Your task to perform on an android device: check battery use Image 0: 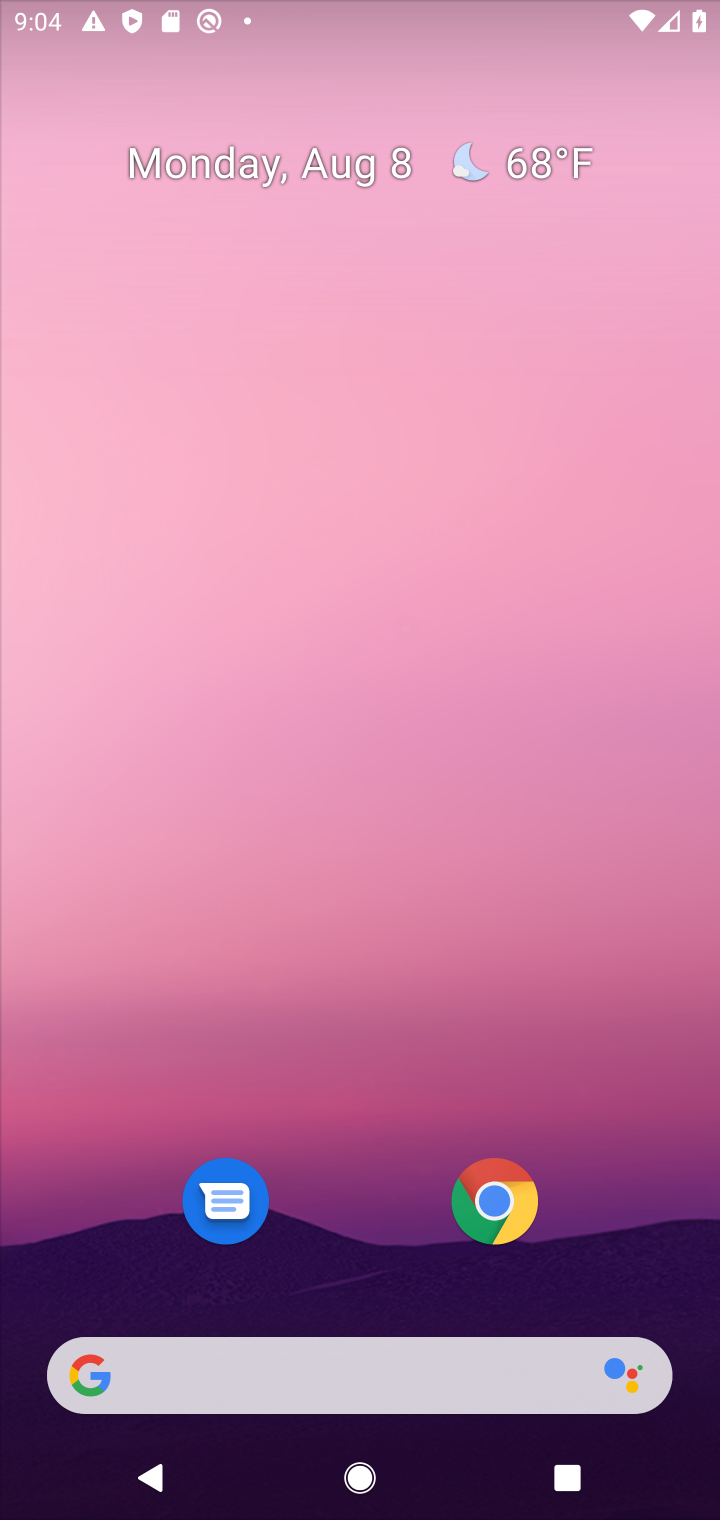
Step 0: press home button
Your task to perform on an android device: check battery use Image 1: 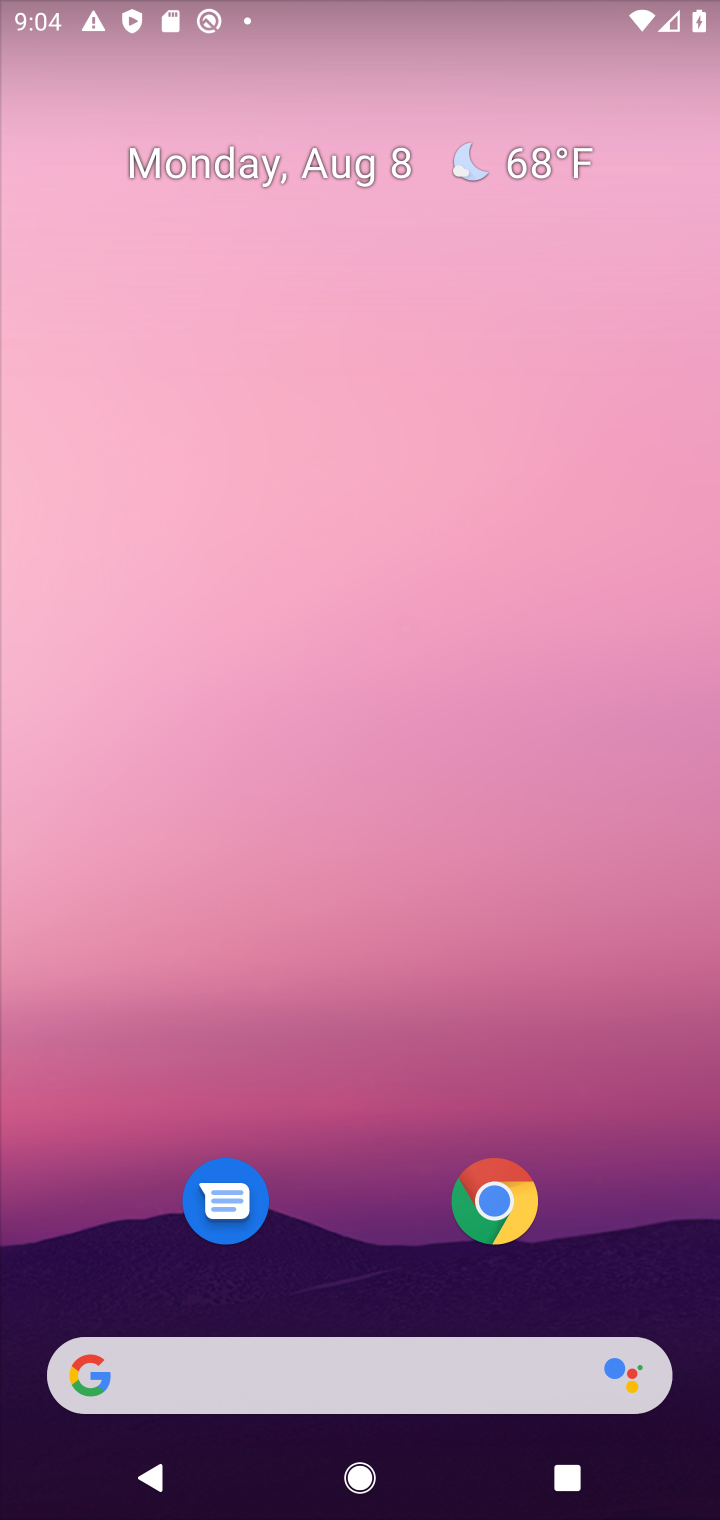
Step 1: drag from (382, 1199) to (466, 194)
Your task to perform on an android device: check battery use Image 2: 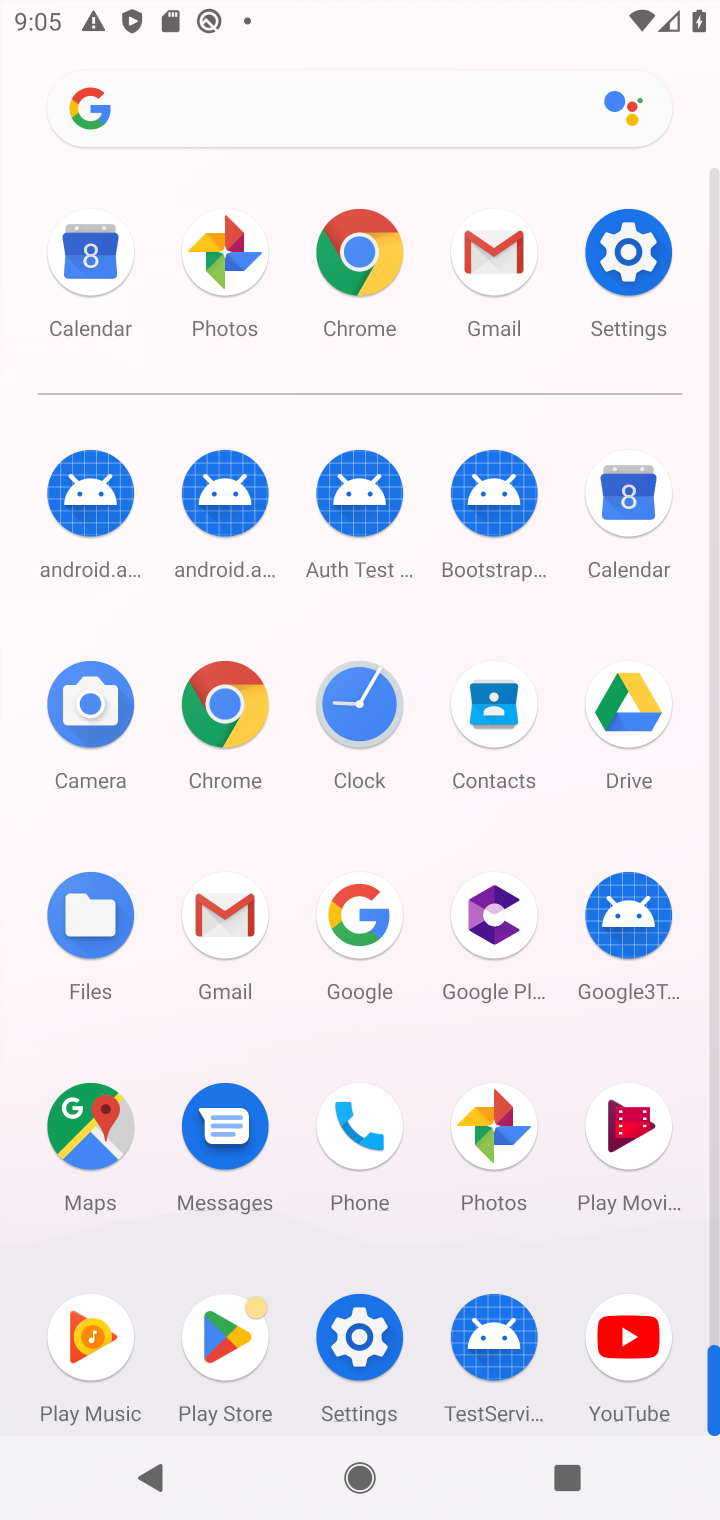
Step 2: click (624, 250)
Your task to perform on an android device: check battery use Image 3: 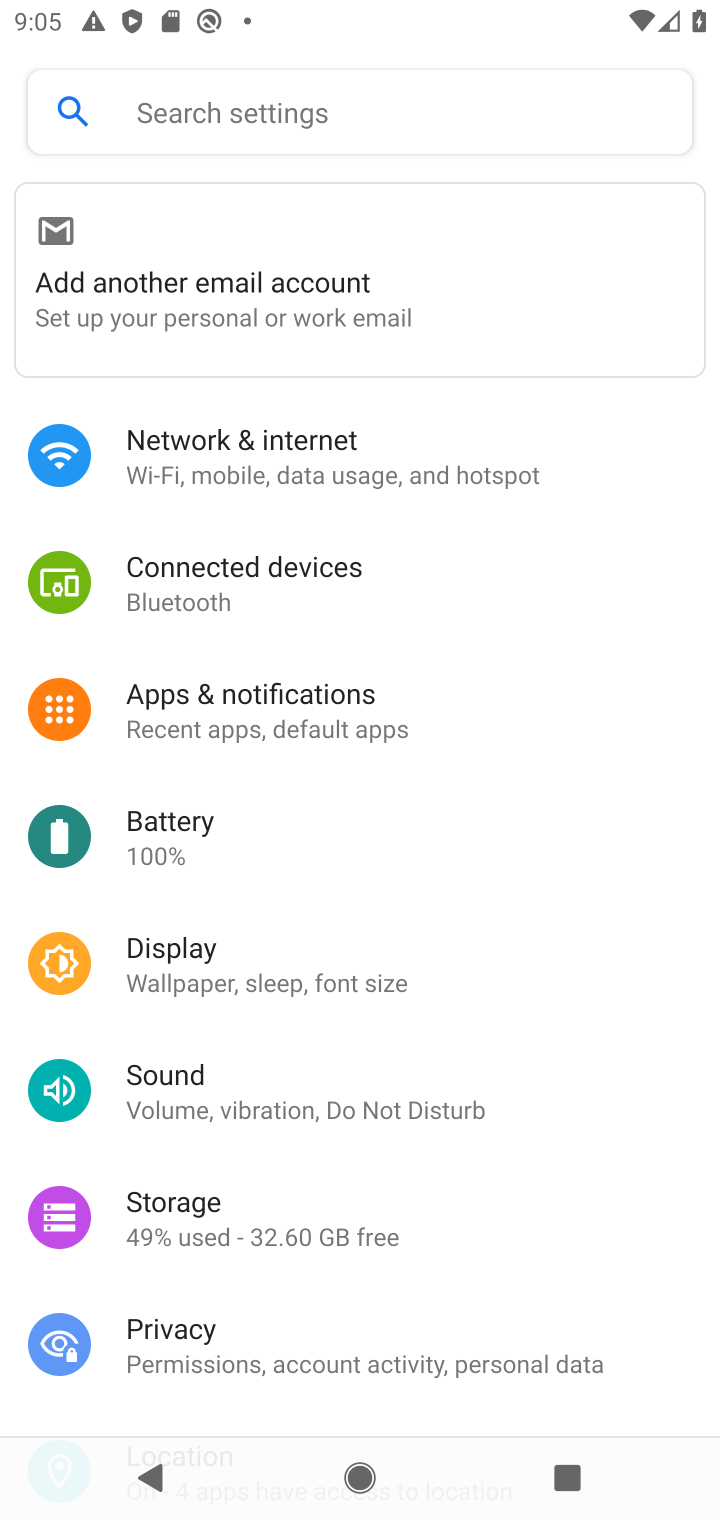
Step 3: drag from (605, 867) to (618, 665)
Your task to perform on an android device: check battery use Image 4: 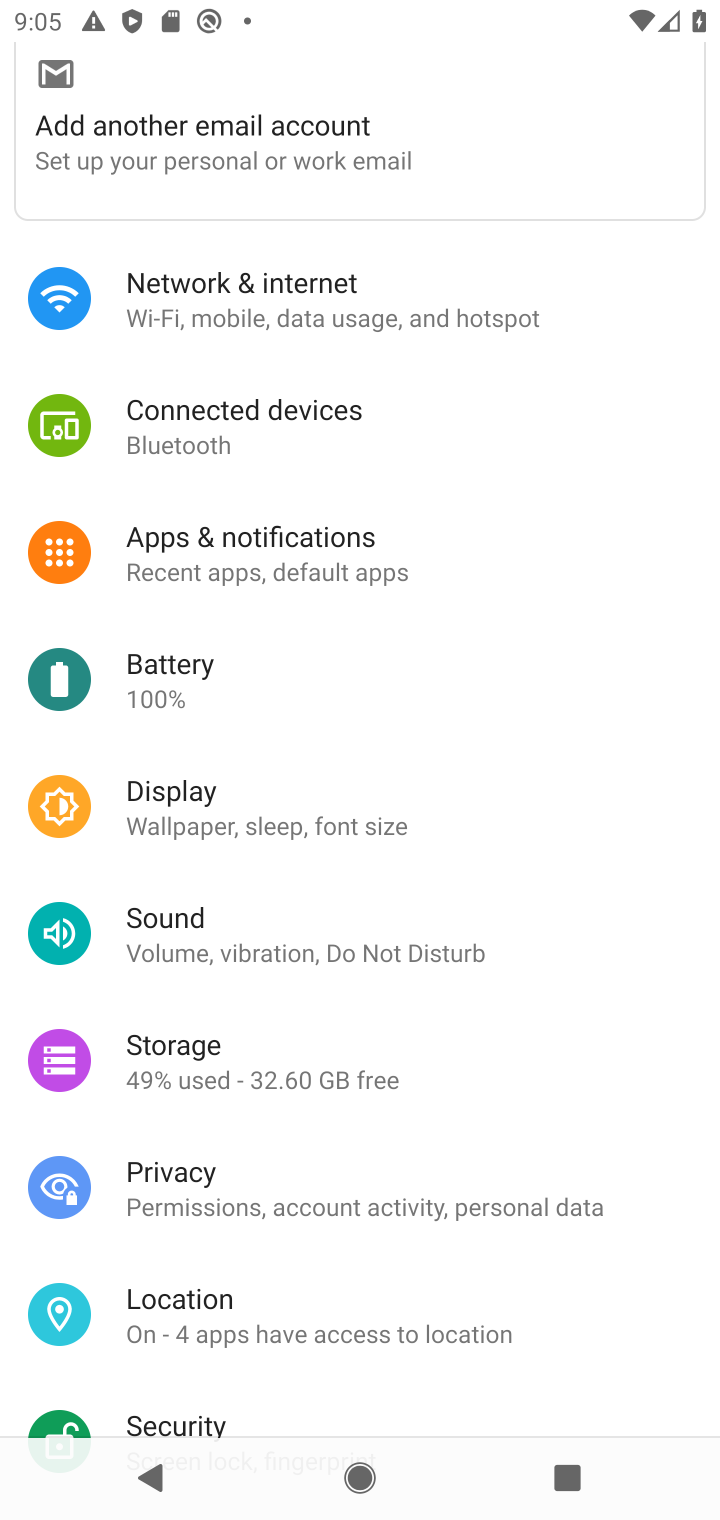
Step 4: drag from (611, 871) to (612, 485)
Your task to perform on an android device: check battery use Image 5: 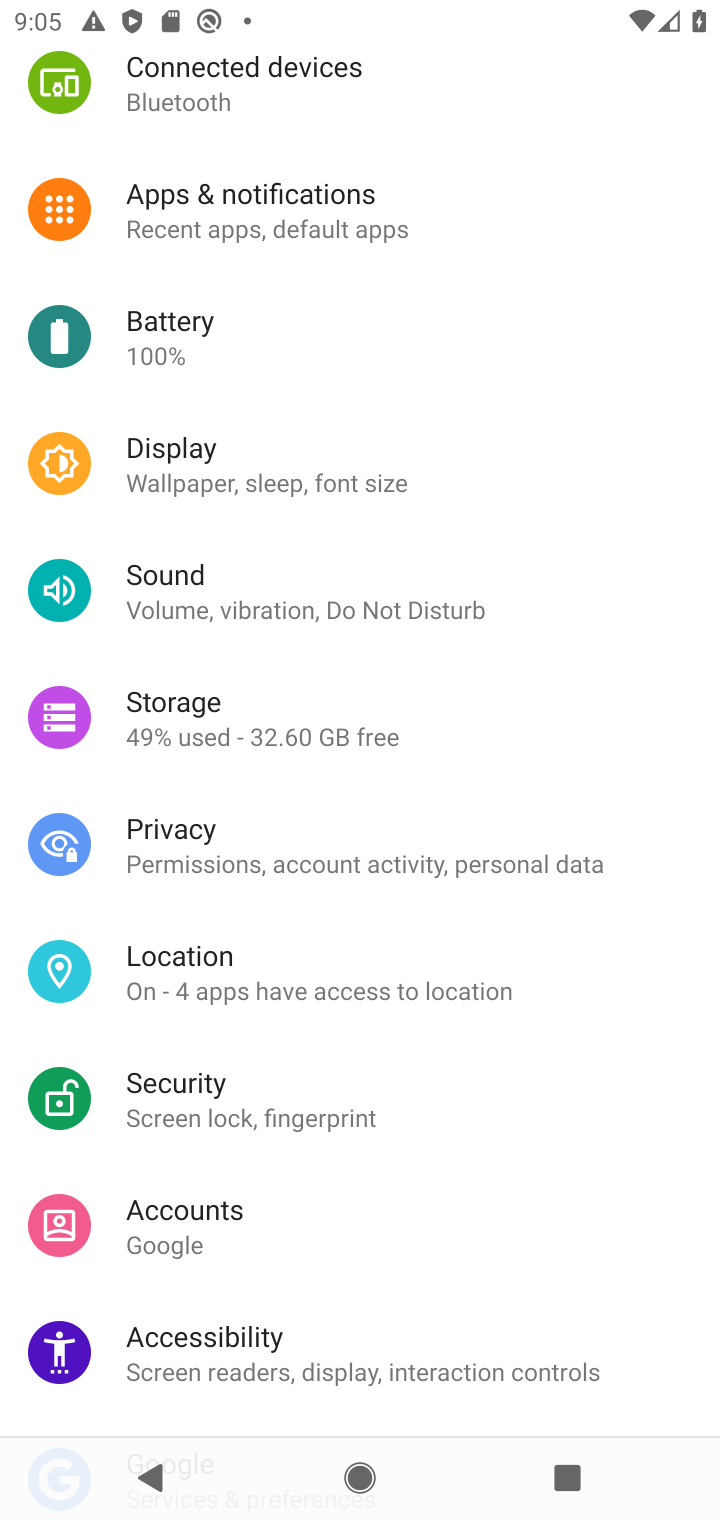
Step 5: click (177, 338)
Your task to perform on an android device: check battery use Image 6: 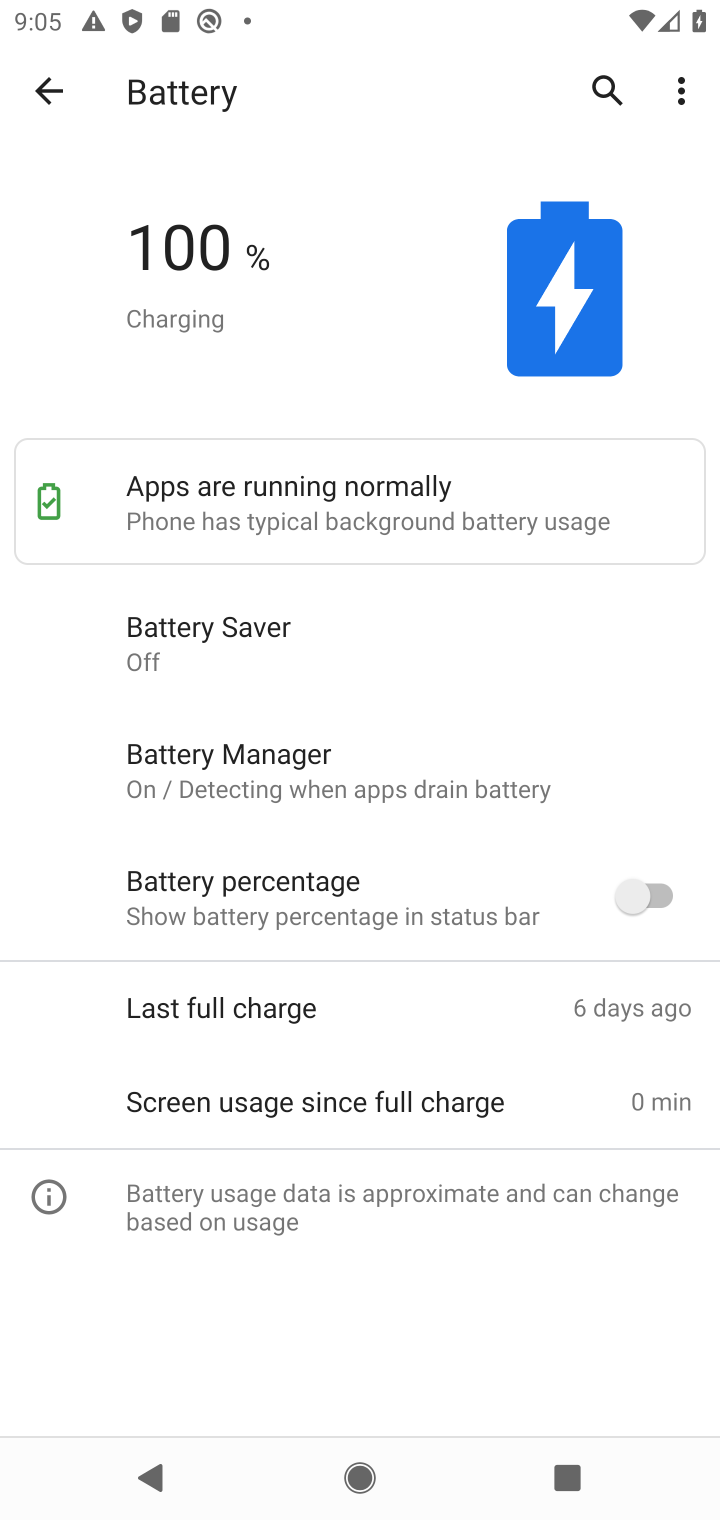
Step 6: click (680, 96)
Your task to perform on an android device: check battery use Image 7: 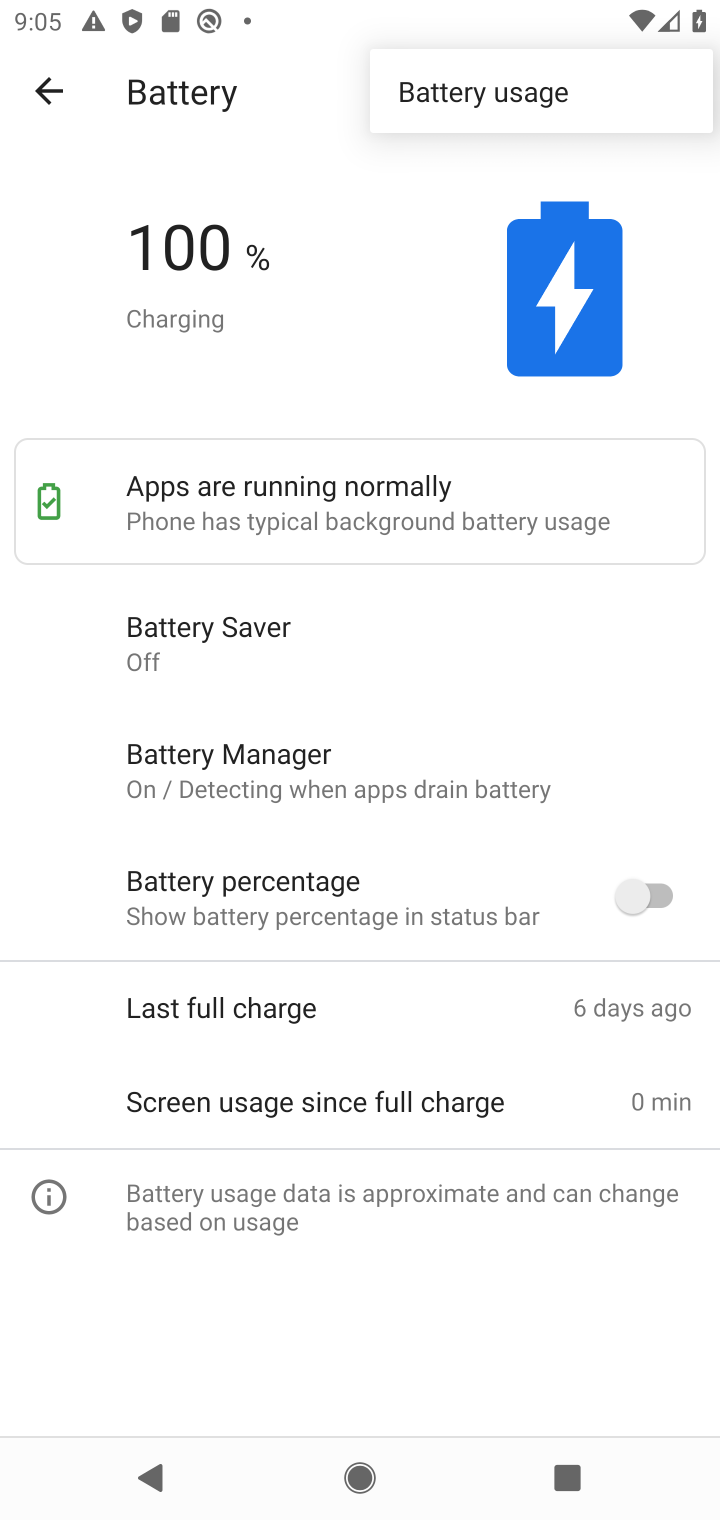
Step 7: click (526, 95)
Your task to perform on an android device: check battery use Image 8: 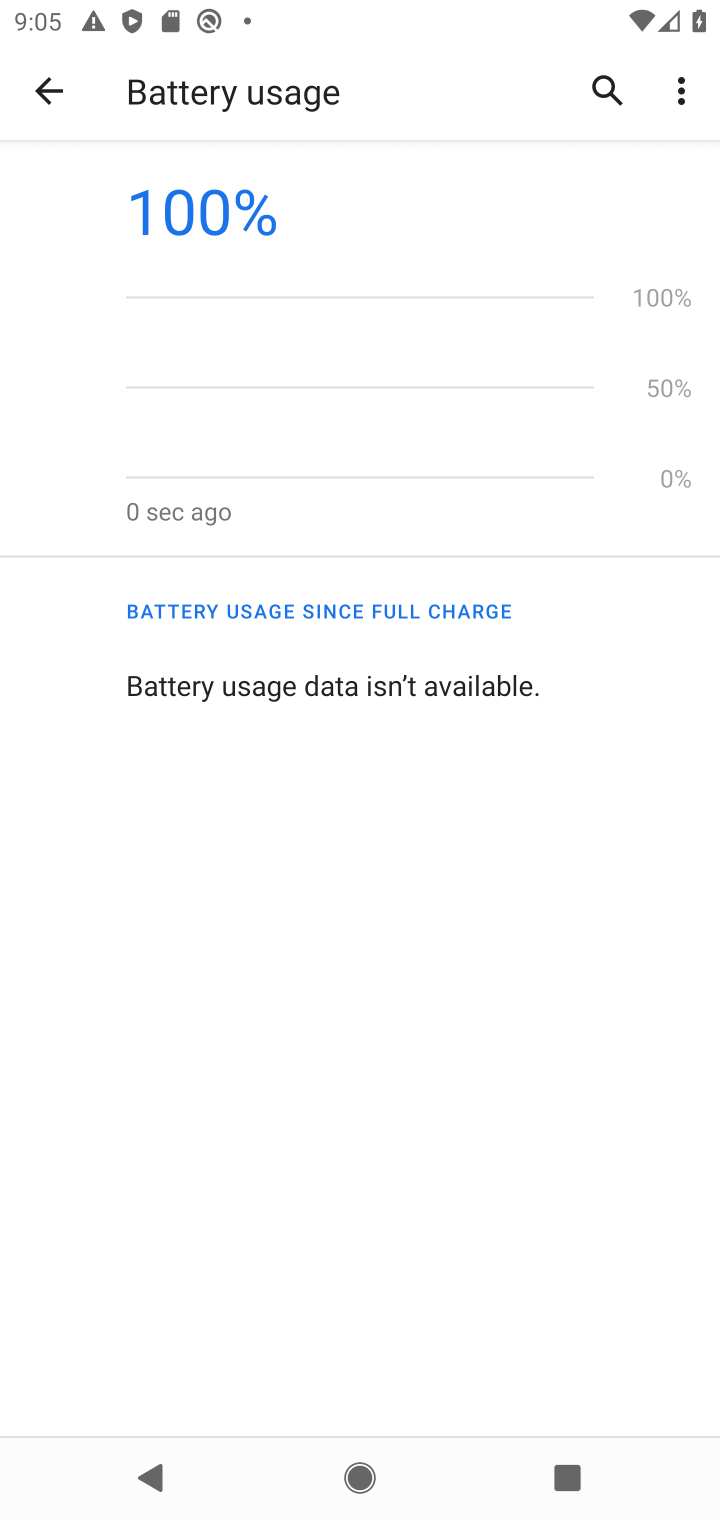
Step 8: task complete